Your task to perform on an android device: open a bookmark in the chrome app Image 0: 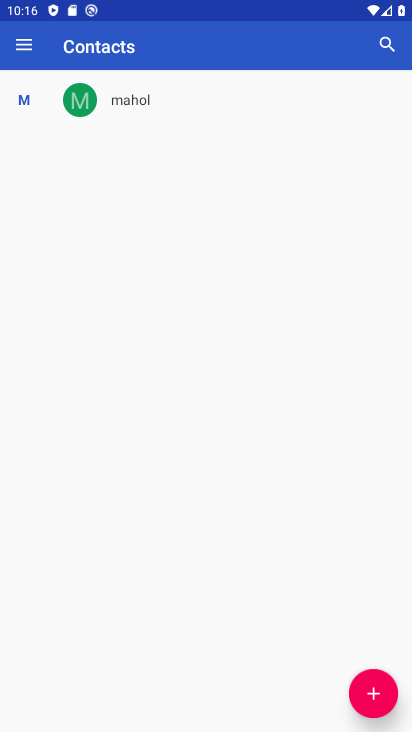
Step 0: press home button
Your task to perform on an android device: open a bookmark in the chrome app Image 1: 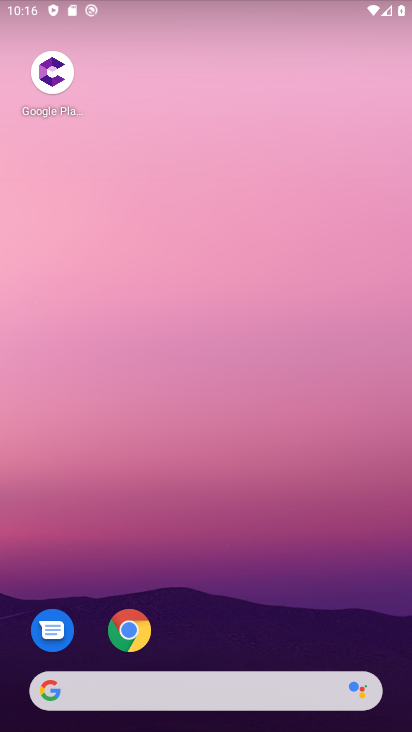
Step 1: drag from (137, 720) to (198, 12)
Your task to perform on an android device: open a bookmark in the chrome app Image 2: 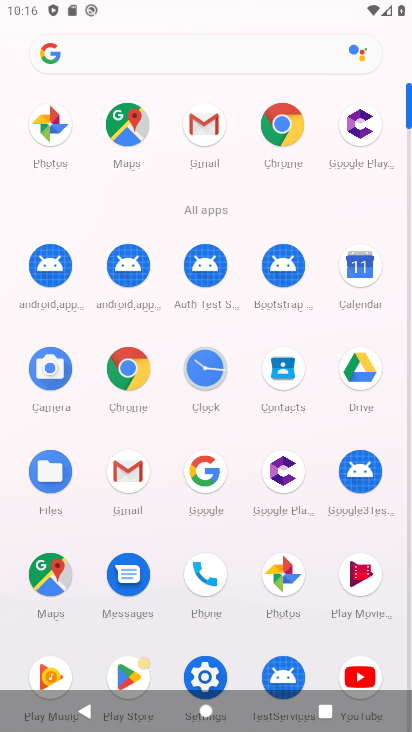
Step 2: click (120, 367)
Your task to perform on an android device: open a bookmark in the chrome app Image 3: 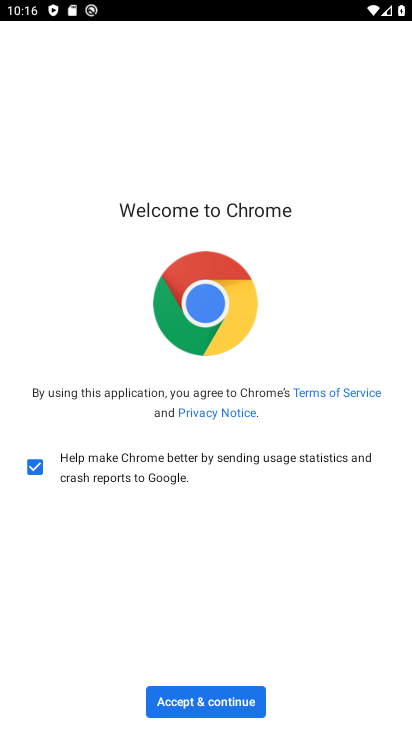
Step 3: click (228, 692)
Your task to perform on an android device: open a bookmark in the chrome app Image 4: 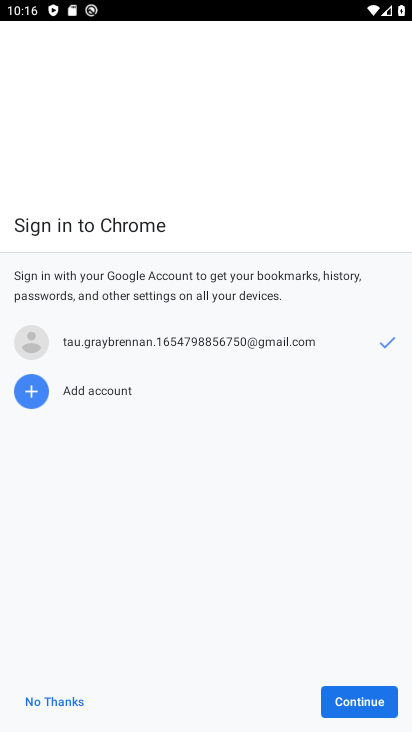
Step 4: click (51, 696)
Your task to perform on an android device: open a bookmark in the chrome app Image 5: 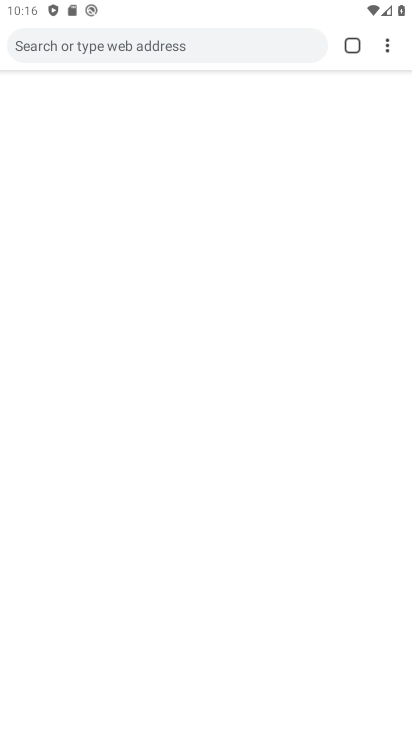
Step 5: task complete